Your task to perform on an android device: Open Google Chrome and click the shortcut for Amazon.com Image 0: 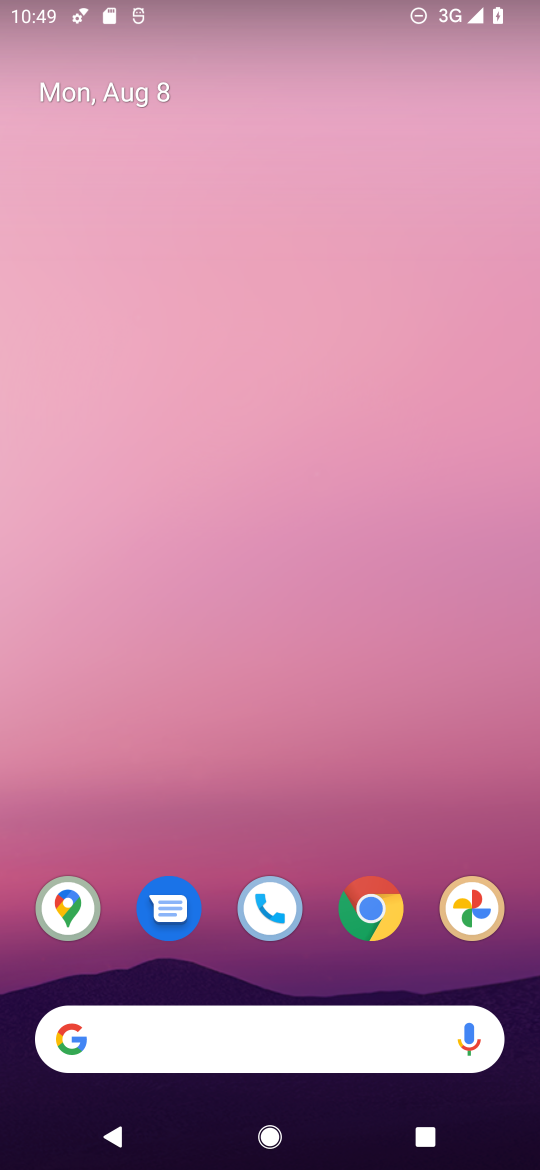
Step 0: press home button
Your task to perform on an android device: Open Google Chrome and click the shortcut for Amazon.com Image 1: 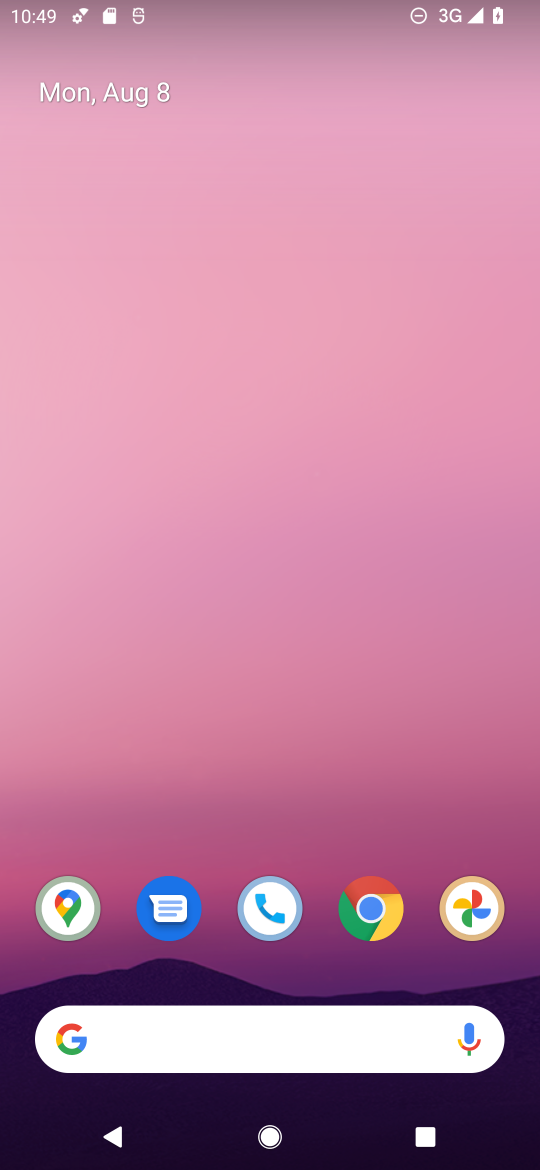
Step 1: click (372, 896)
Your task to perform on an android device: Open Google Chrome and click the shortcut for Amazon.com Image 2: 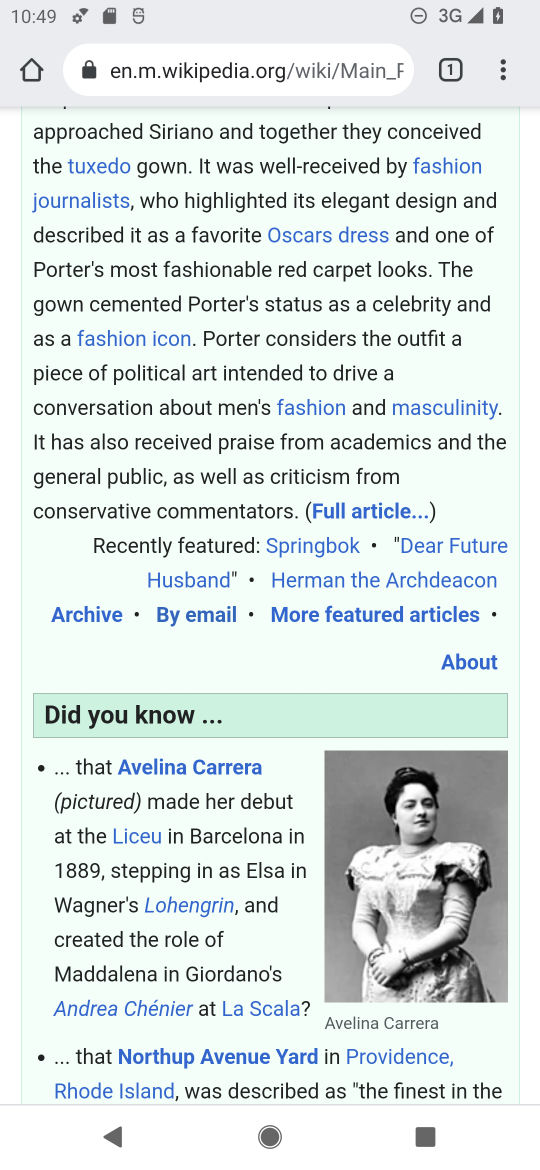
Step 2: drag from (256, 939) to (326, 107)
Your task to perform on an android device: Open Google Chrome and click the shortcut for Amazon.com Image 3: 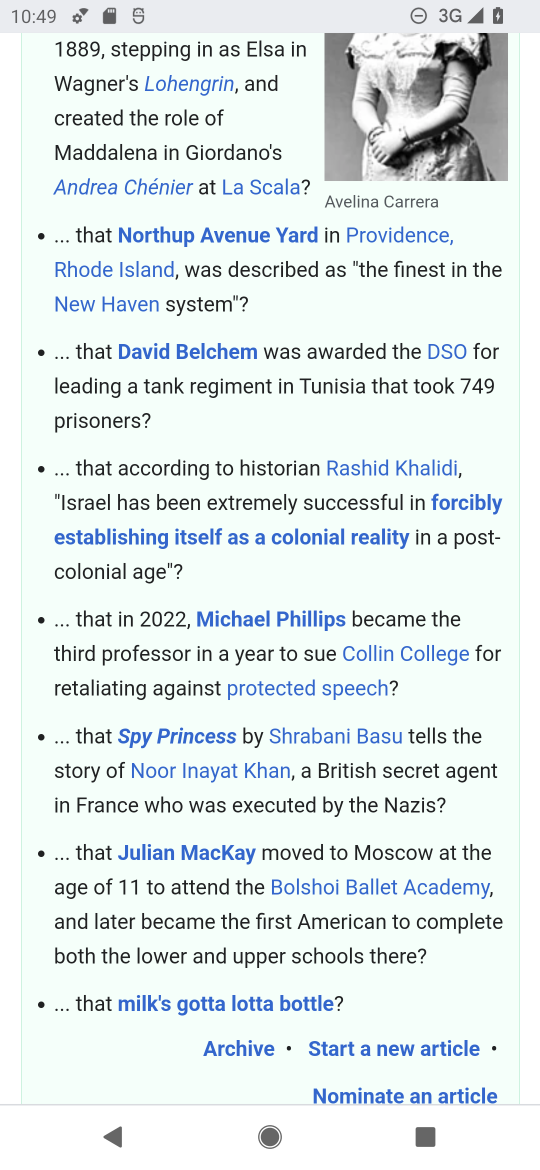
Step 3: drag from (281, 161) to (255, 999)
Your task to perform on an android device: Open Google Chrome and click the shortcut for Amazon.com Image 4: 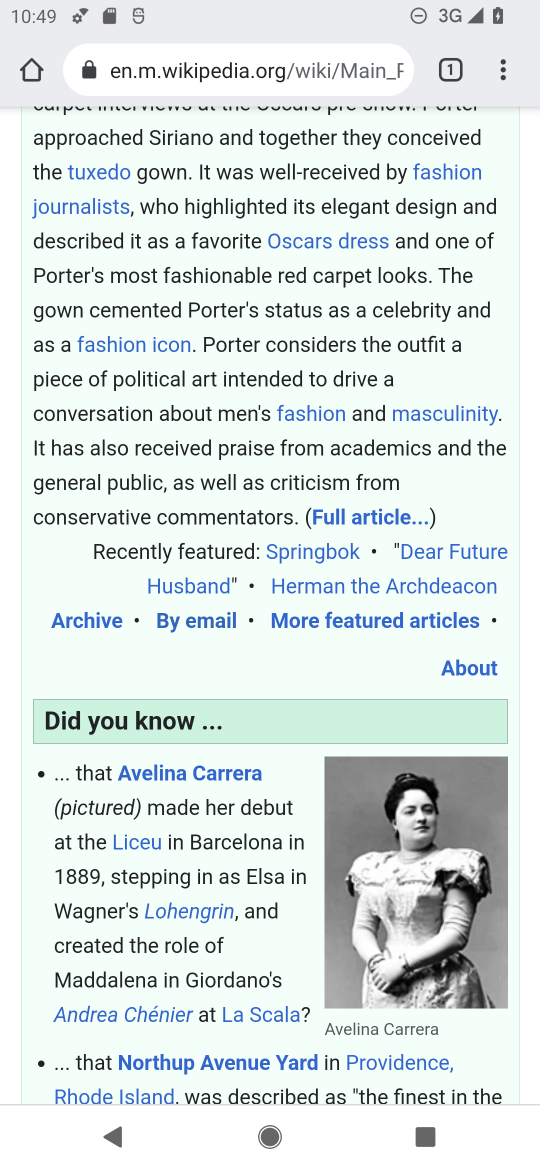
Step 4: click (452, 66)
Your task to perform on an android device: Open Google Chrome and click the shortcut for Amazon.com Image 5: 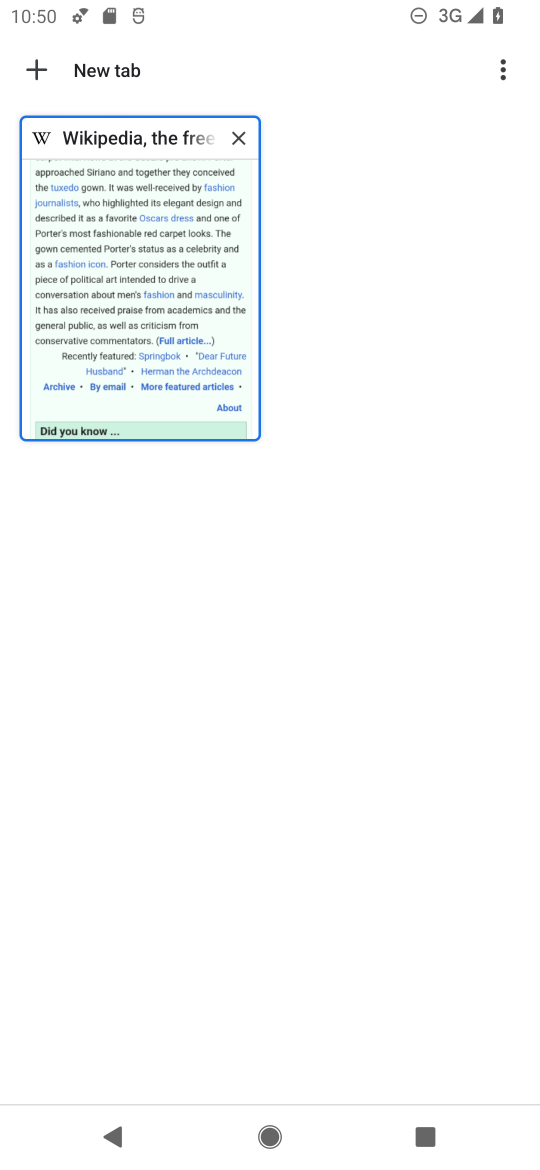
Step 5: click (41, 71)
Your task to perform on an android device: Open Google Chrome and click the shortcut for Amazon.com Image 6: 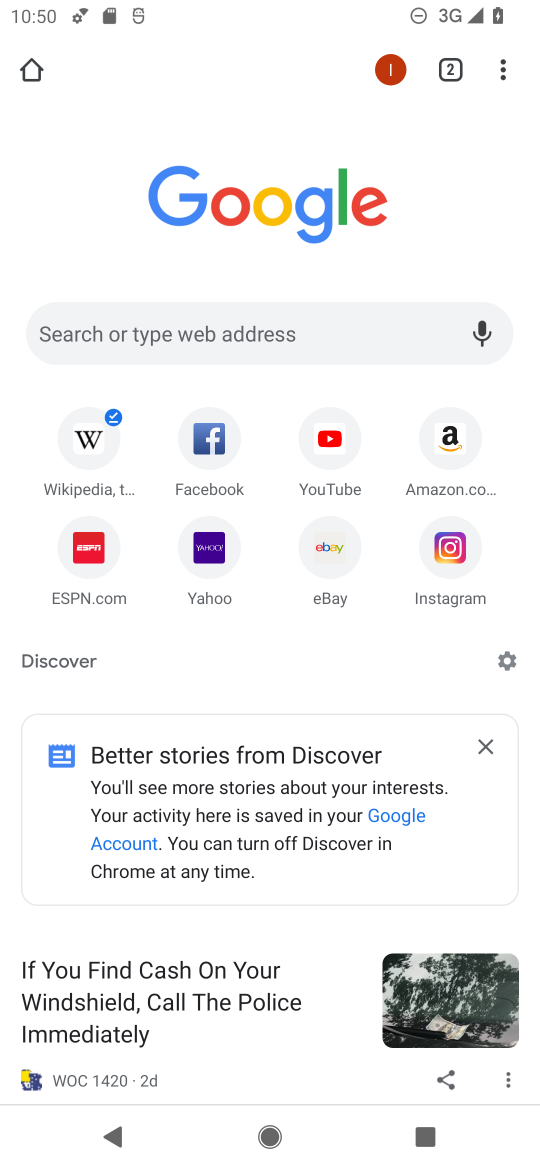
Step 6: click (444, 434)
Your task to perform on an android device: Open Google Chrome and click the shortcut for Amazon.com Image 7: 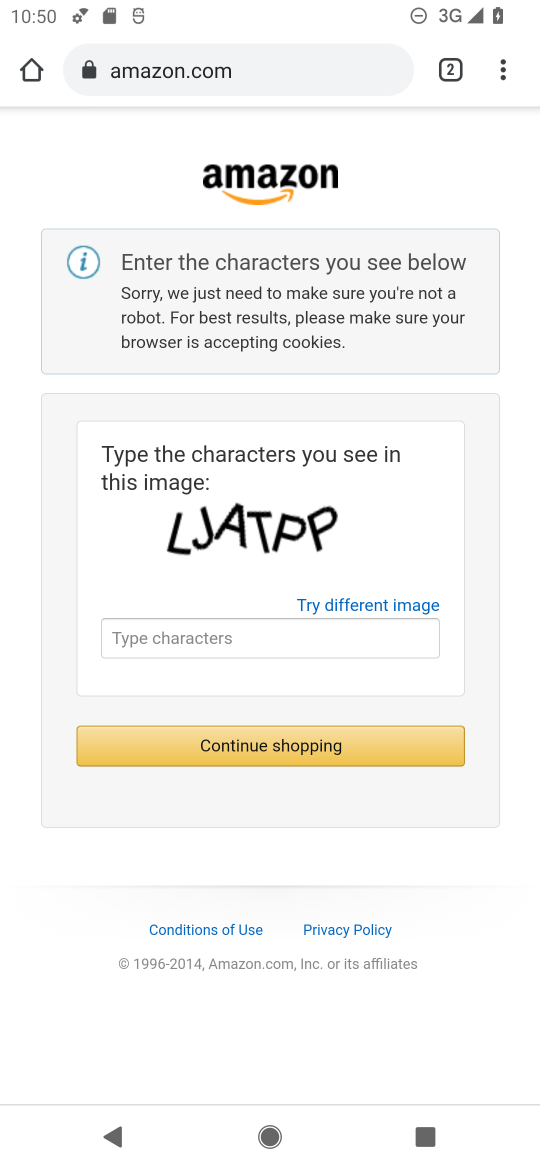
Step 7: click (137, 637)
Your task to perform on an android device: Open Google Chrome and click the shortcut for Amazon.com Image 8: 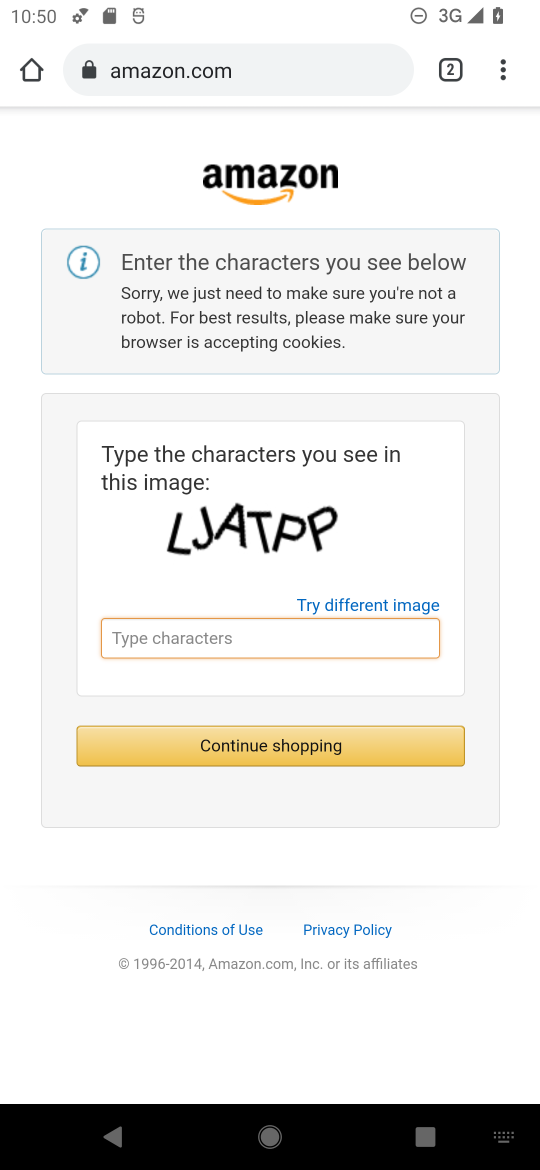
Step 8: type "LJATPP"
Your task to perform on an android device: Open Google Chrome and click the shortcut for Amazon.com Image 9: 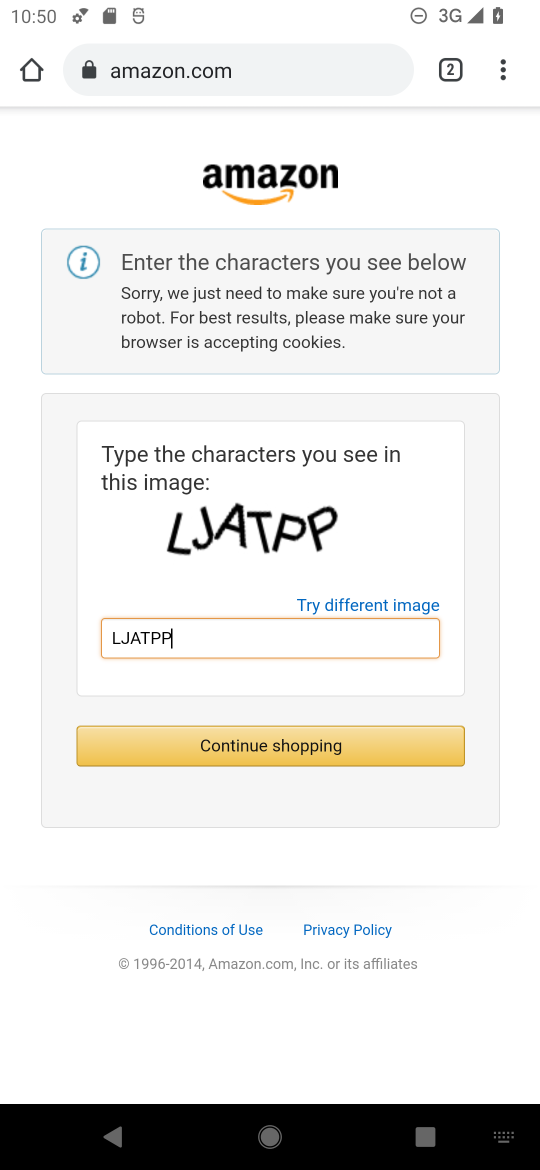
Step 9: click (320, 751)
Your task to perform on an android device: Open Google Chrome and click the shortcut for Amazon.com Image 10: 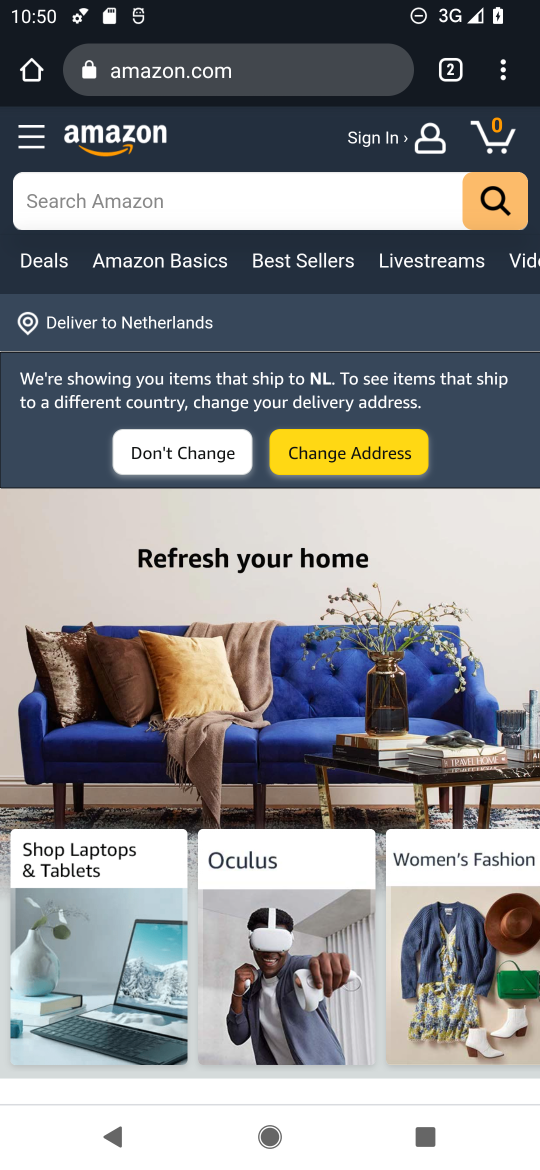
Step 10: task complete